Your task to perform on an android device: Open sound settings Image 0: 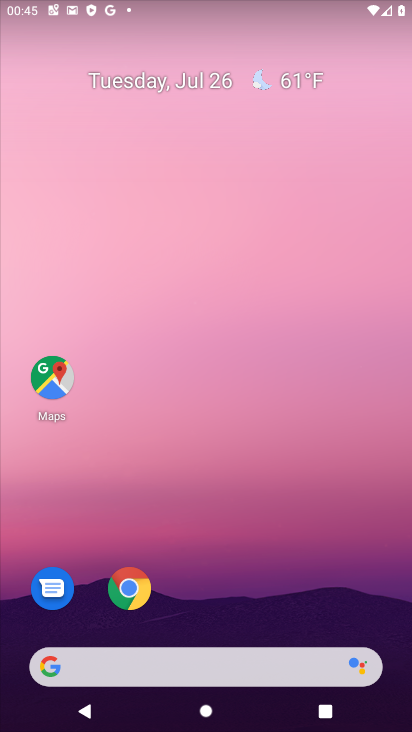
Step 0: press home button
Your task to perform on an android device: Open sound settings Image 1: 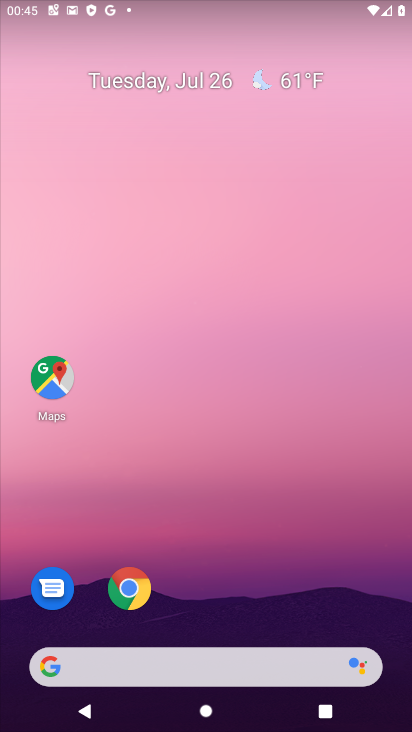
Step 1: drag from (208, 627) to (213, 0)
Your task to perform on an android device: Open sound settings Image 2: 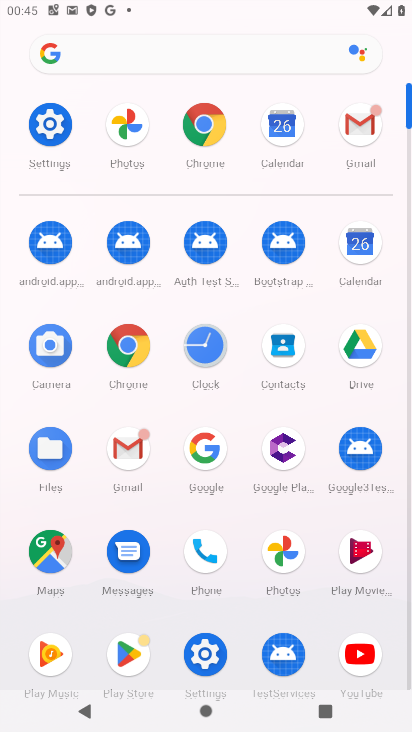
Step 2: click (46, 122)
Your task to perform on an android device: Open sound settings Image 3: 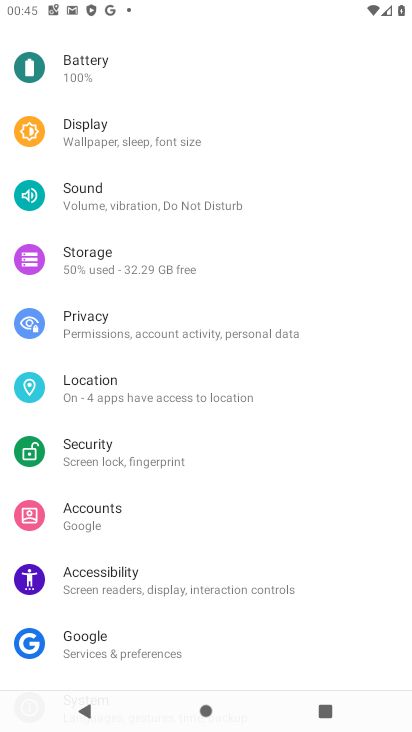
Step 3: click (114, 189)
Your task to perform on an android device: Open sound settings Image 4: 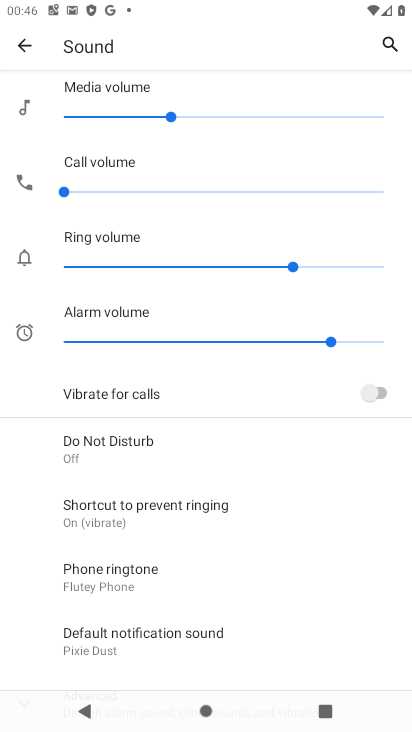
Step 4: task complete